Your task to perform on an android device: Toggle the flashlight Image 0: 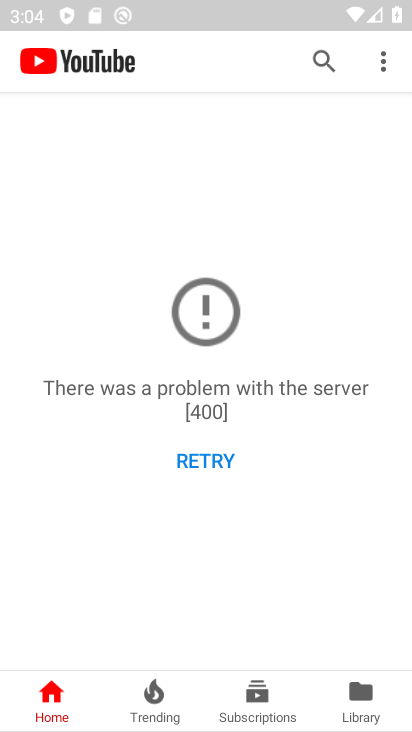
Step 0: press home button
Your task to perform on an android device: Toggle the flashlight Image 1: 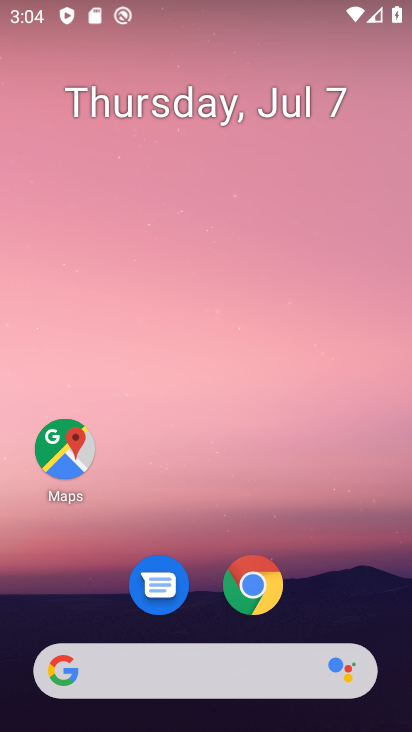
Step 1: drag from (228, 514) to (281, 0)
Your task to perform on an android device: Toggle the flashlight Image 2: 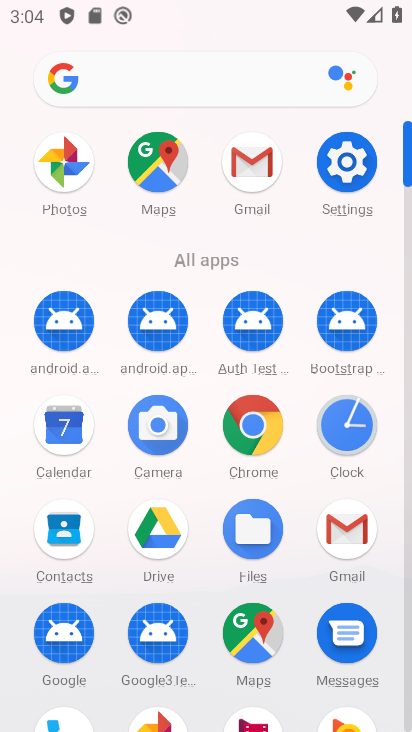
Step 2: click (349, 164)
Your task to perform on an android device: Toggle the flashlight Image 3: 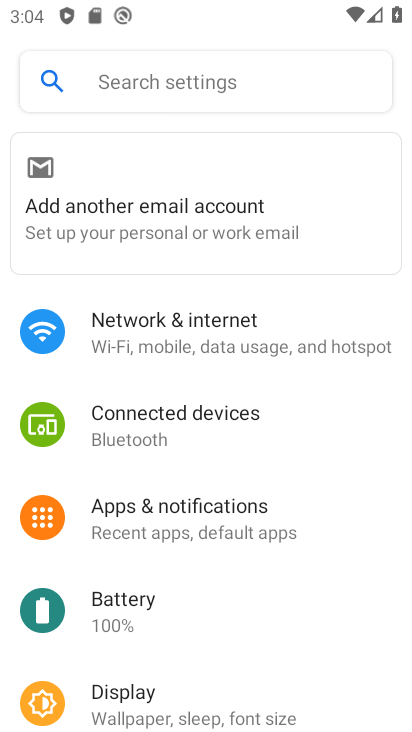
Step 3: click (269, 85)
Your task to perform on an android device: Toggle the flashlight Image 4: 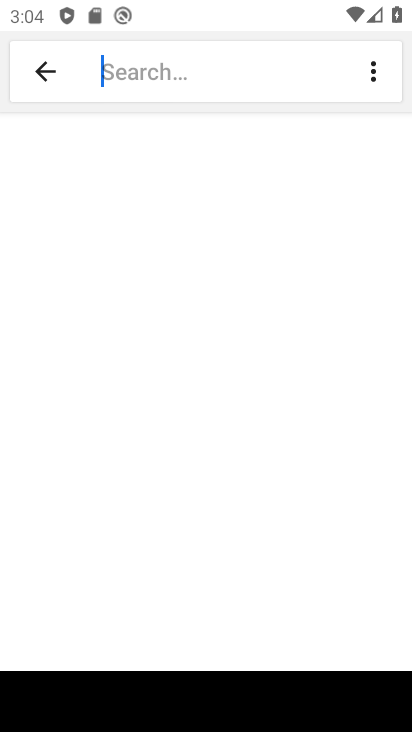
Step 4: type "Flashlight"
Your task to perform on an android device: Toggle the flashlight Image 5: 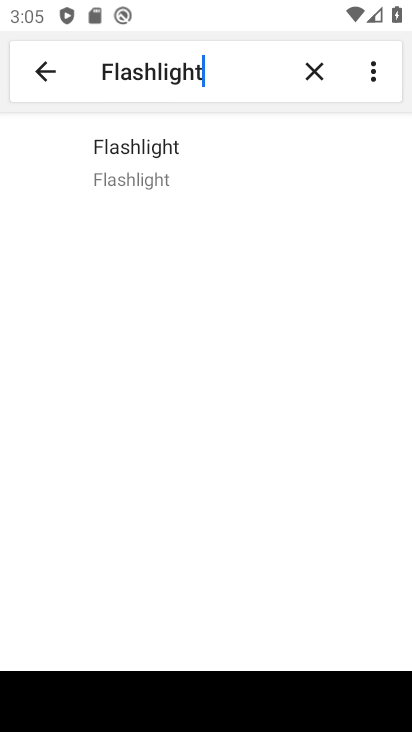
Step 5: click (146, 145)
Your task to perform on an android device: Toggle the flashlight Image 6: 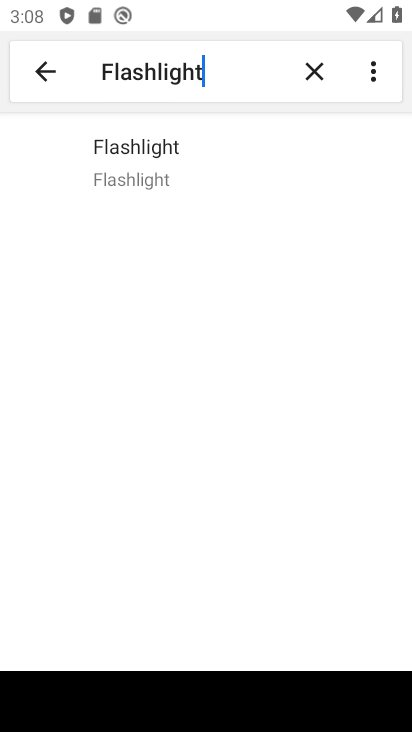
Step 6: task complete